Your task to perform on an android device: open app "PlayWell" (install if not already installed) and go to login screen Image 0: 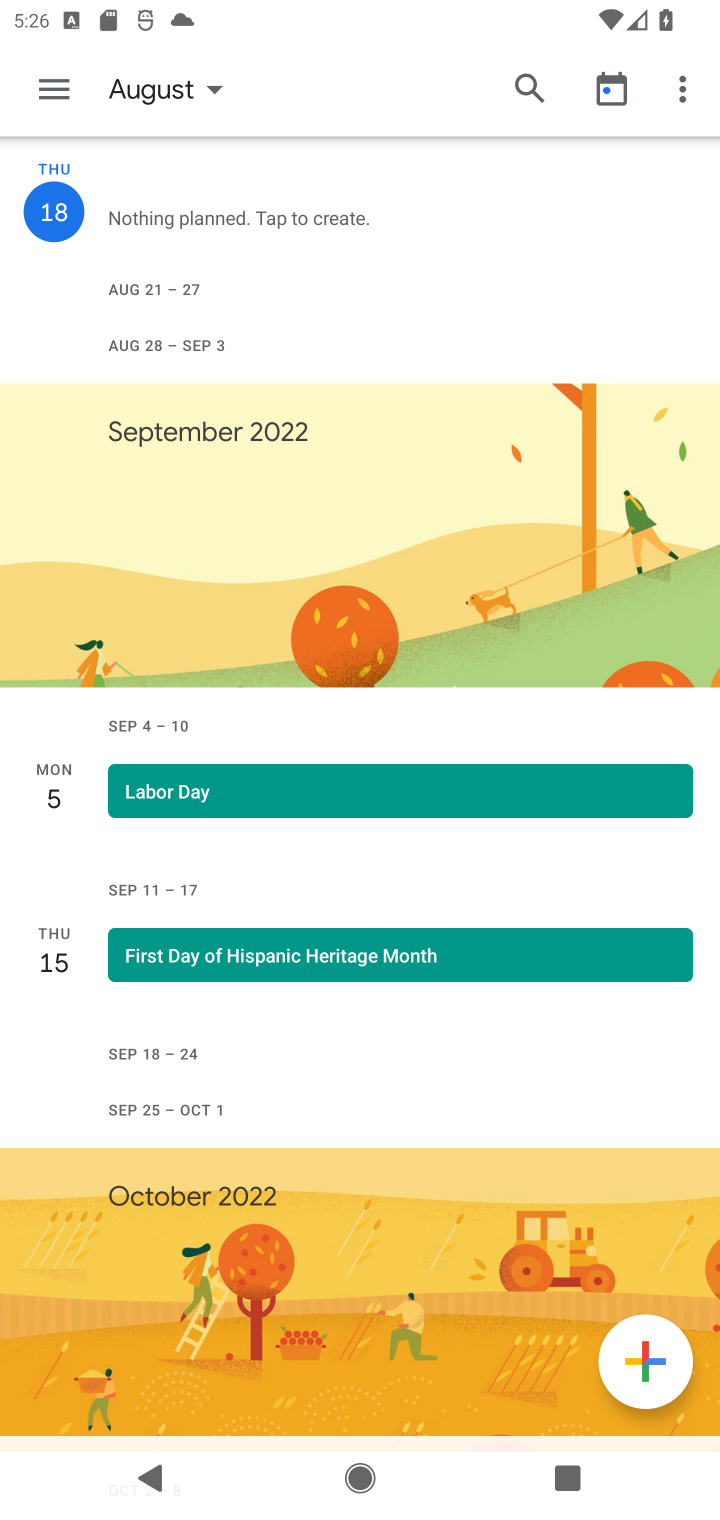
Step 0: press home button
Your task to perform on an android device: open app "PlayWell" (install if not already installed) and go to login screen Image 1: 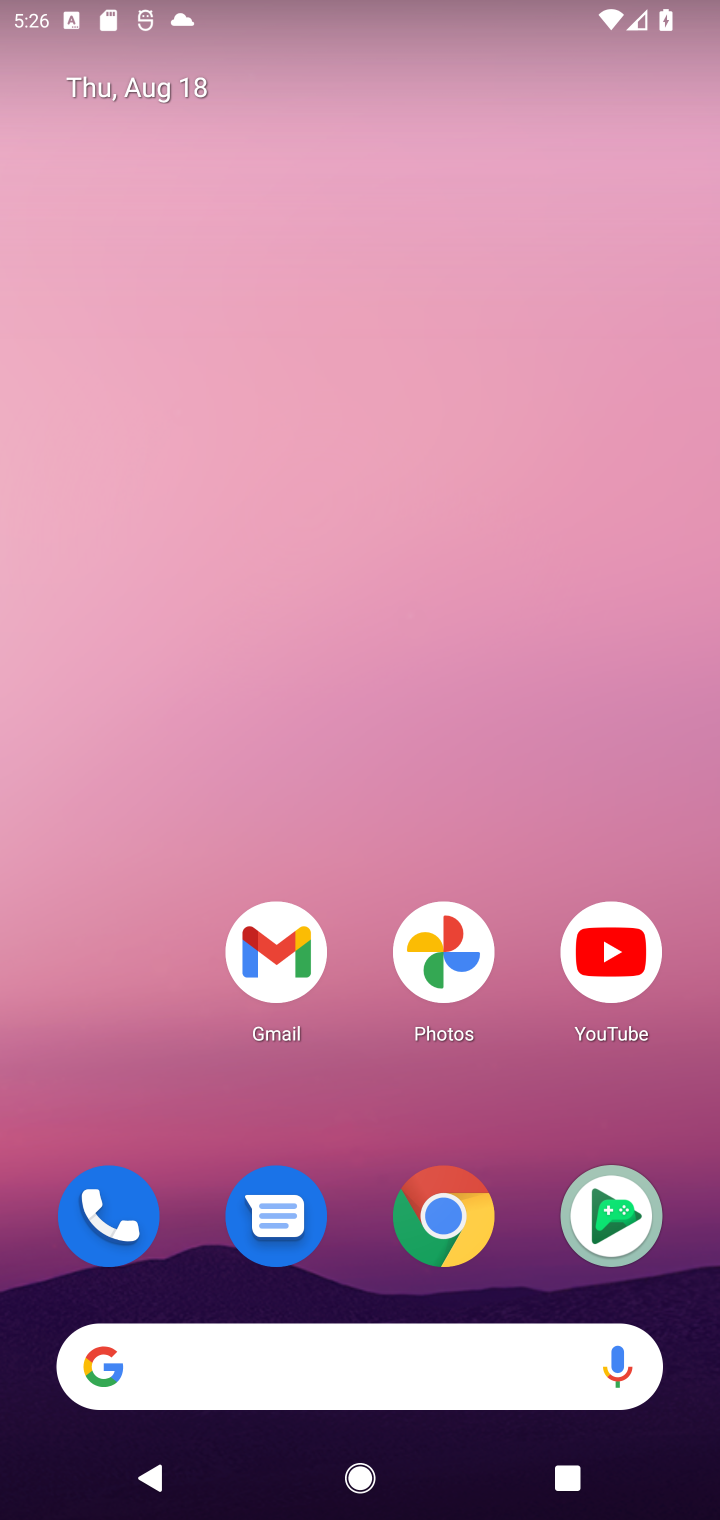
Step 1: drag from (395, 931) to (407, 41)
Your task to perform on an android device: open app "PlayWell" (install if not already installed) and go to login screen Image 2: 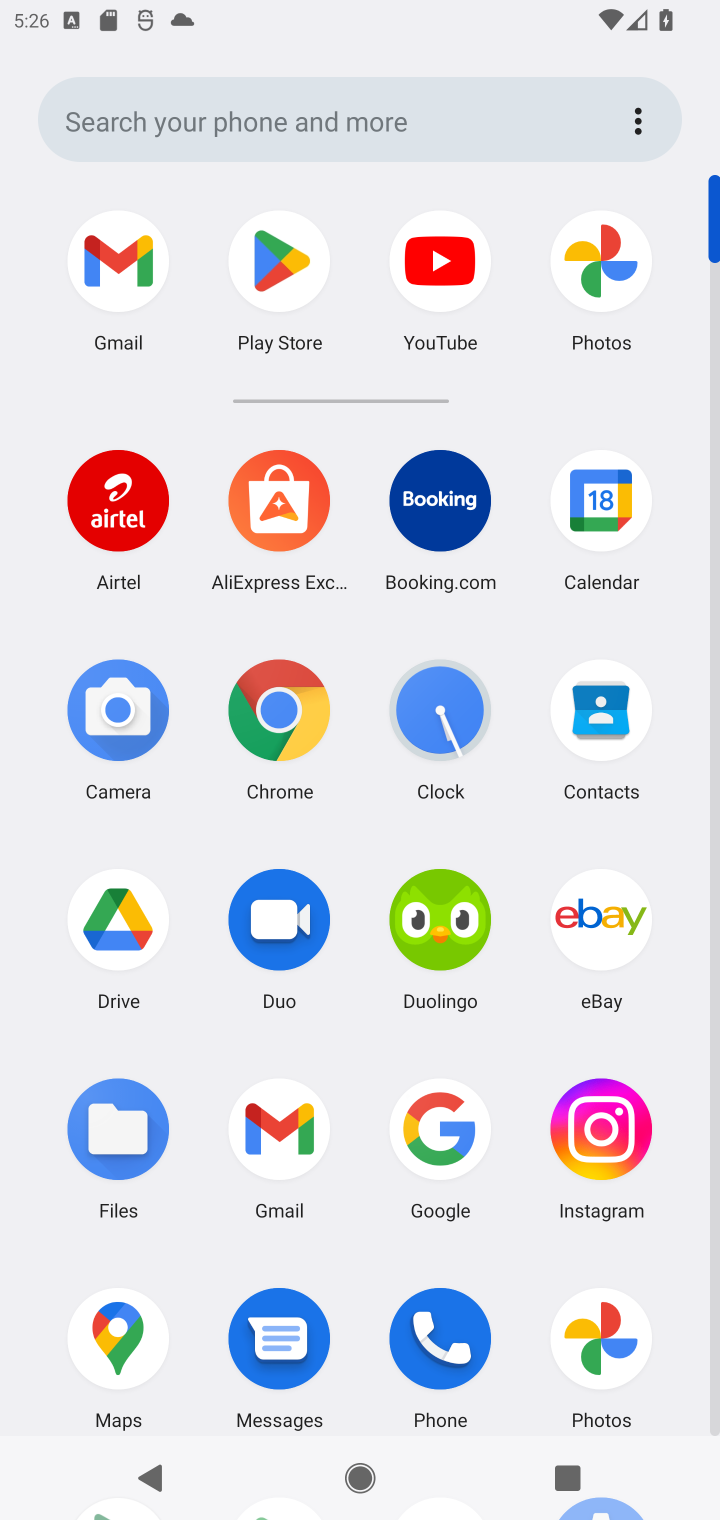
Step 2: click (308, 264)
Your task to perform on an android device: open app "PlayWell" (install if not already installed) and go to login screen Image 3: 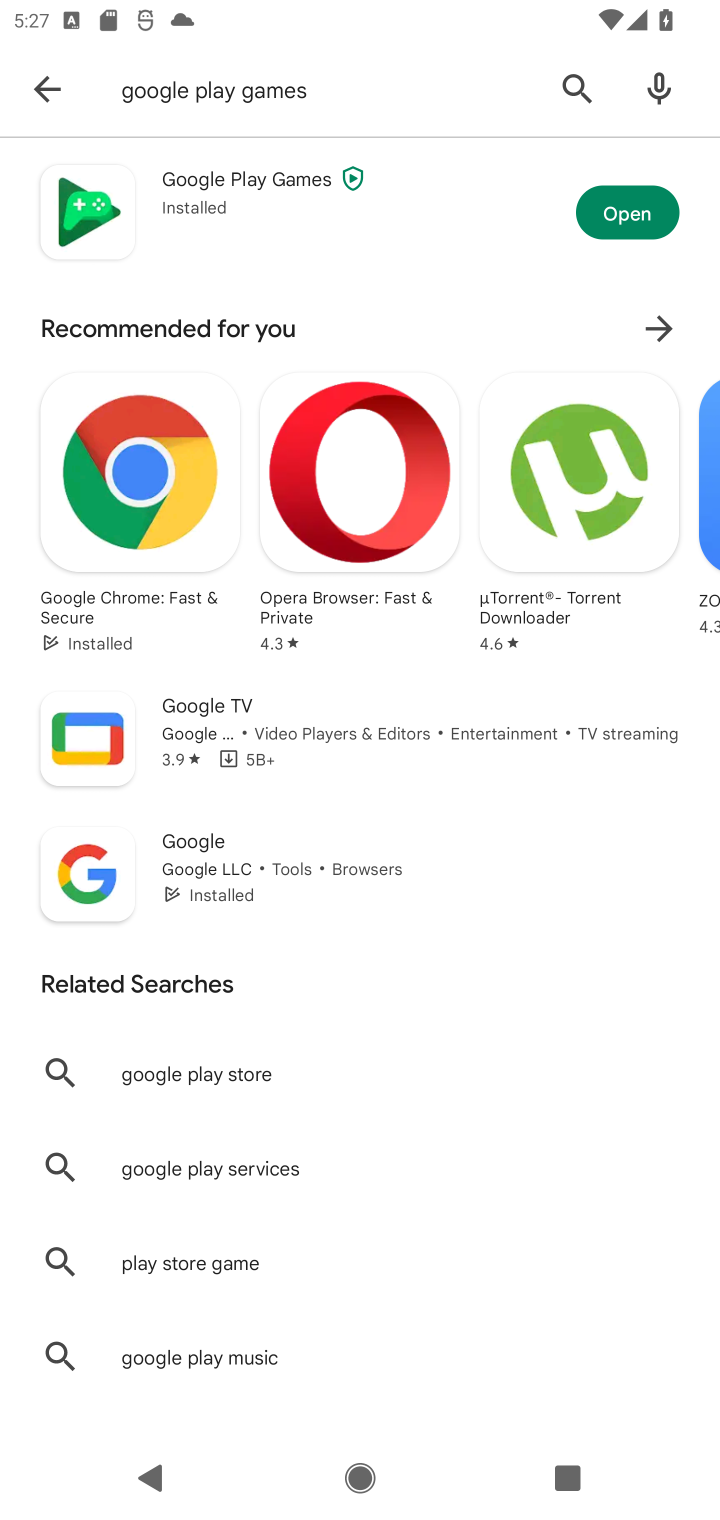
Step 3: click (590, 91)
Your task to perform on an android device: open app "PlayWell" (install if not already installed) and go to login screen Image 4: 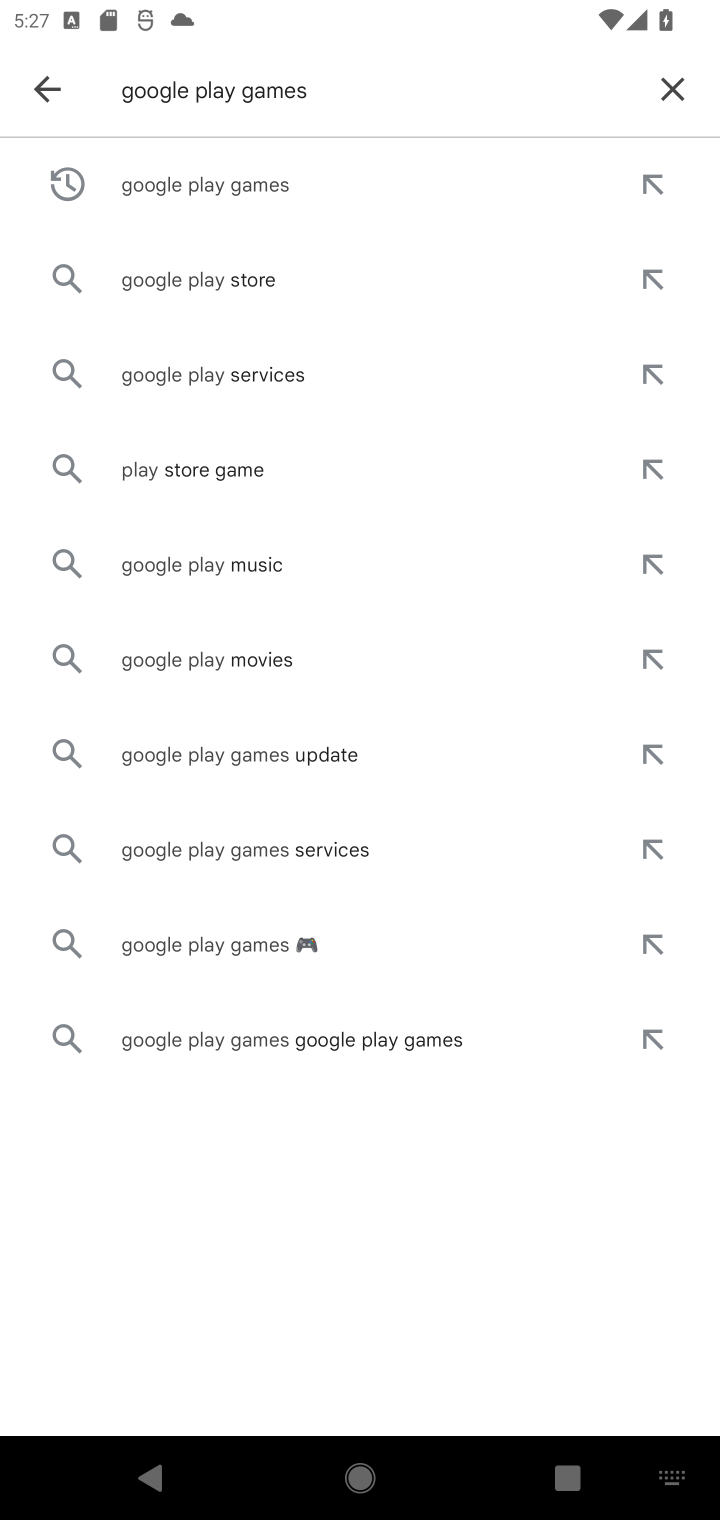
Step 4: click (673, 96)
Your task to perform on an android device: open app "PlayWell" (install if not already installed) and go to login screen Image 5: 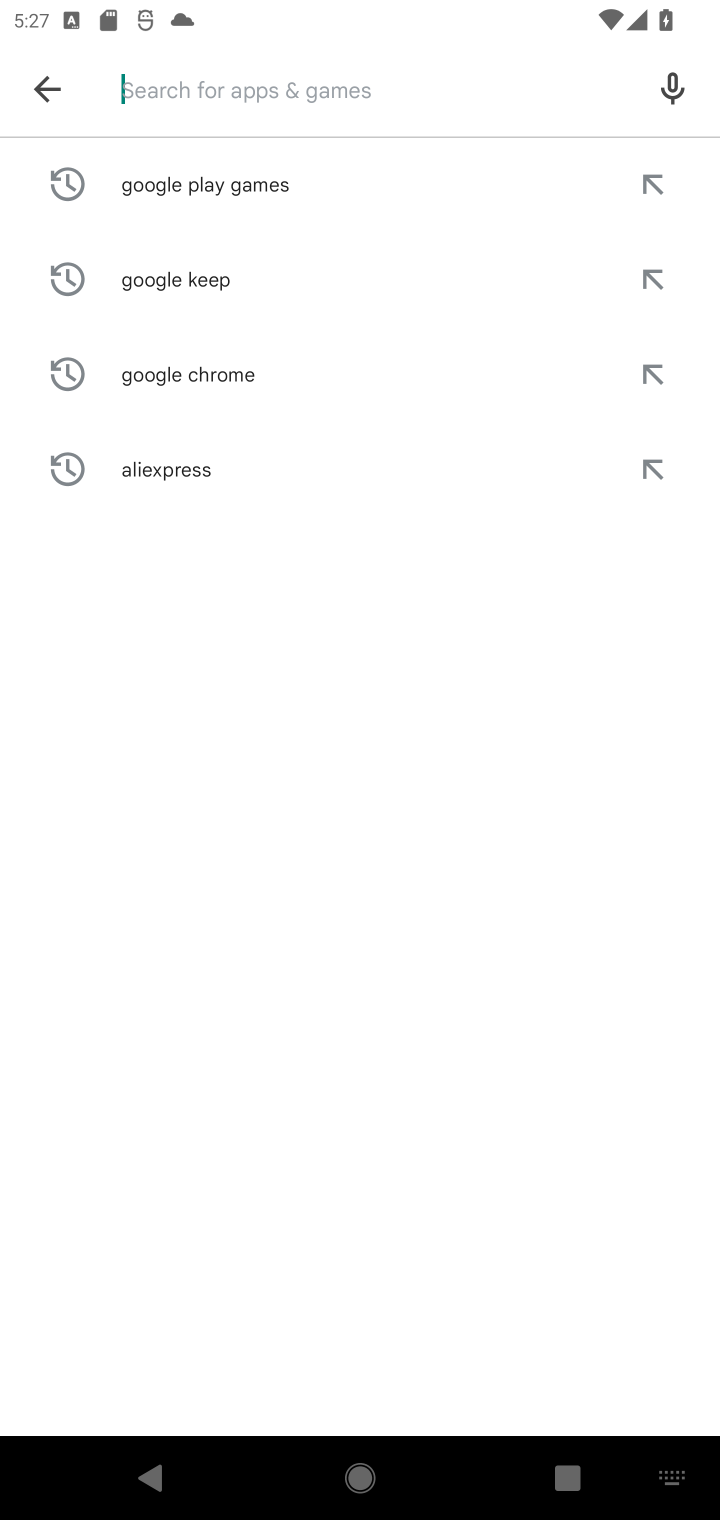
Step 5: type "PlayWell"
Your task to perform on an android device: open app "PlayWell" (install if not already installed) and go to login screen Image 6: 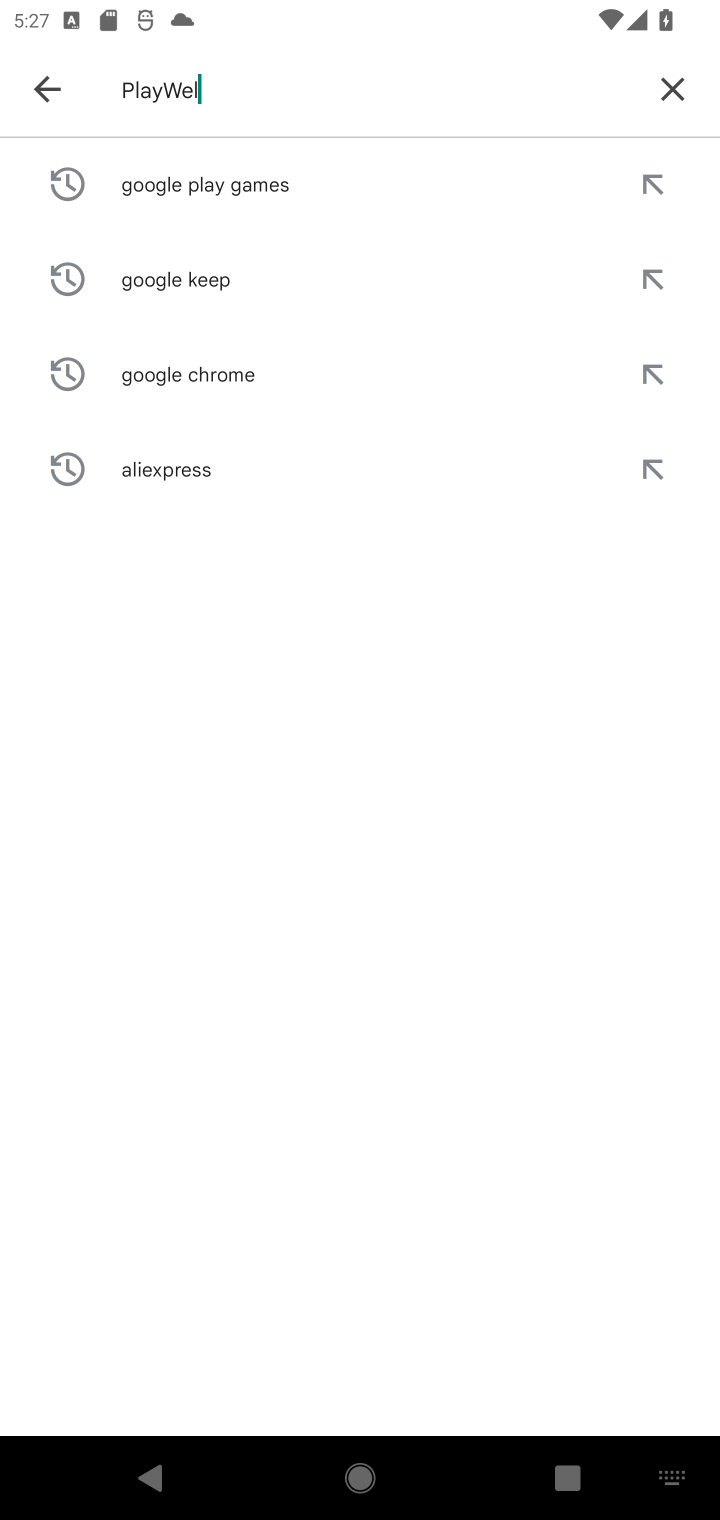
Step 6: type ""
Your task to perform on an android device: open app "PlayWell" (install if not already installed) and go to login screen Image 7: 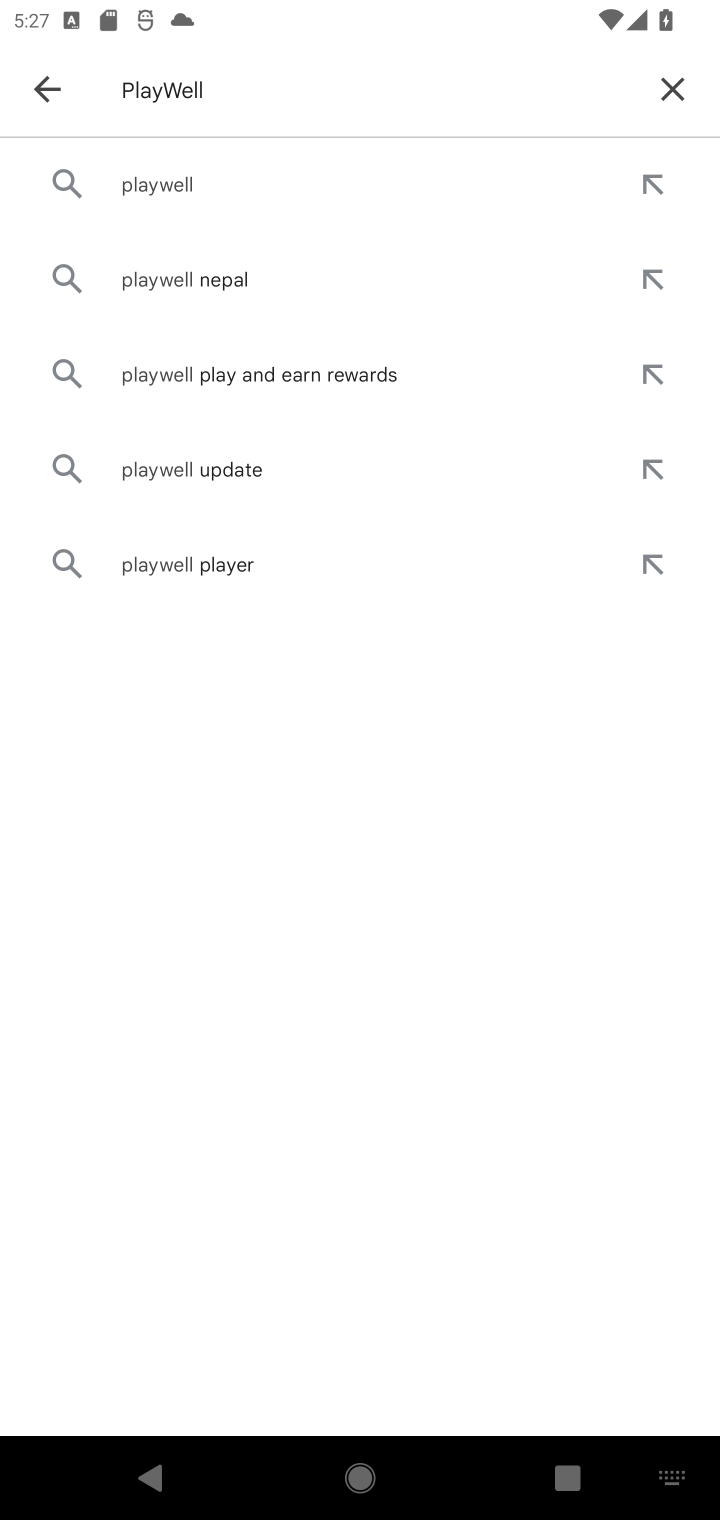
Step 7: click (289, 185)
Your task to perform on an android device: open app "PlayWell" (install if not already installed) and go to login screen Image 8: 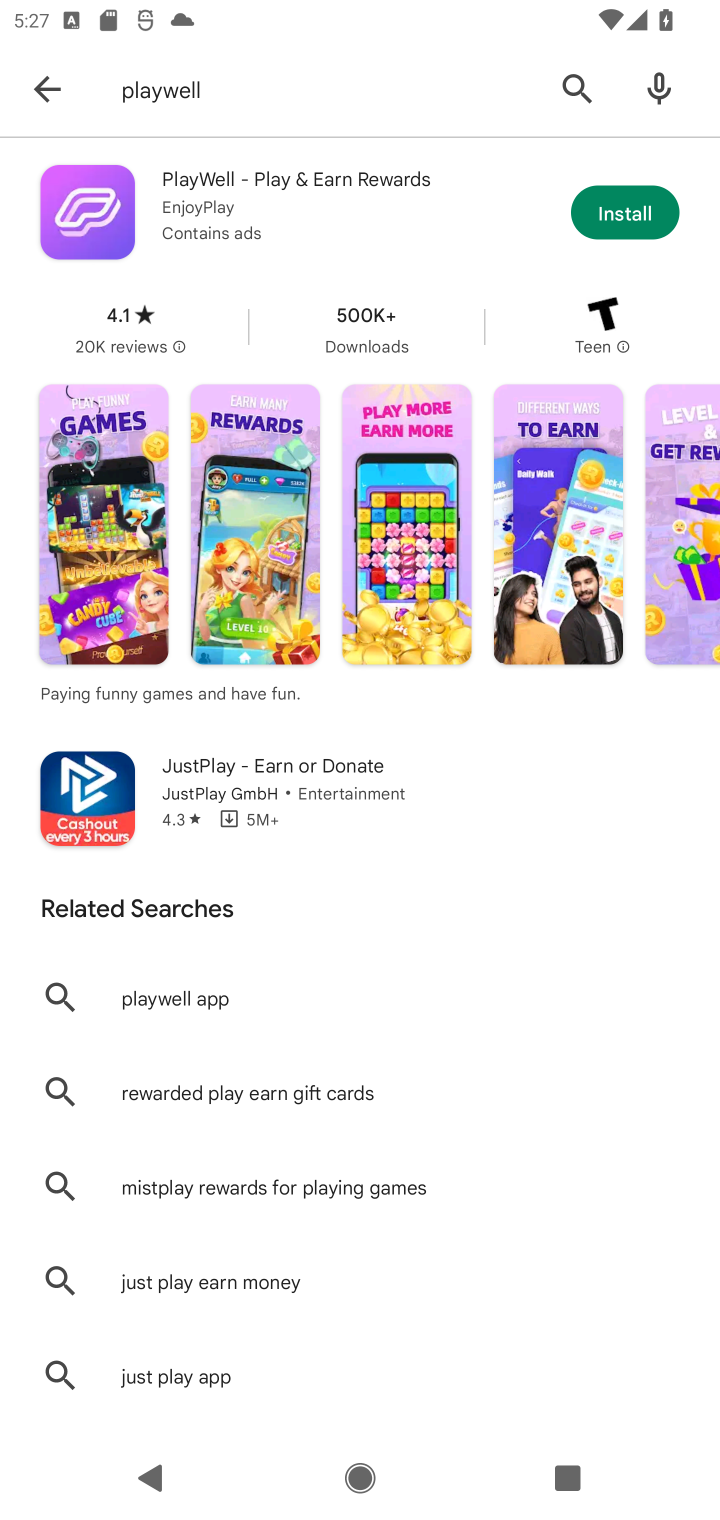
Step 8: click (657, 208)
Your task to perform on an android device: open app "PlayWell" (install if not already installed) and go to login screen Image 9: 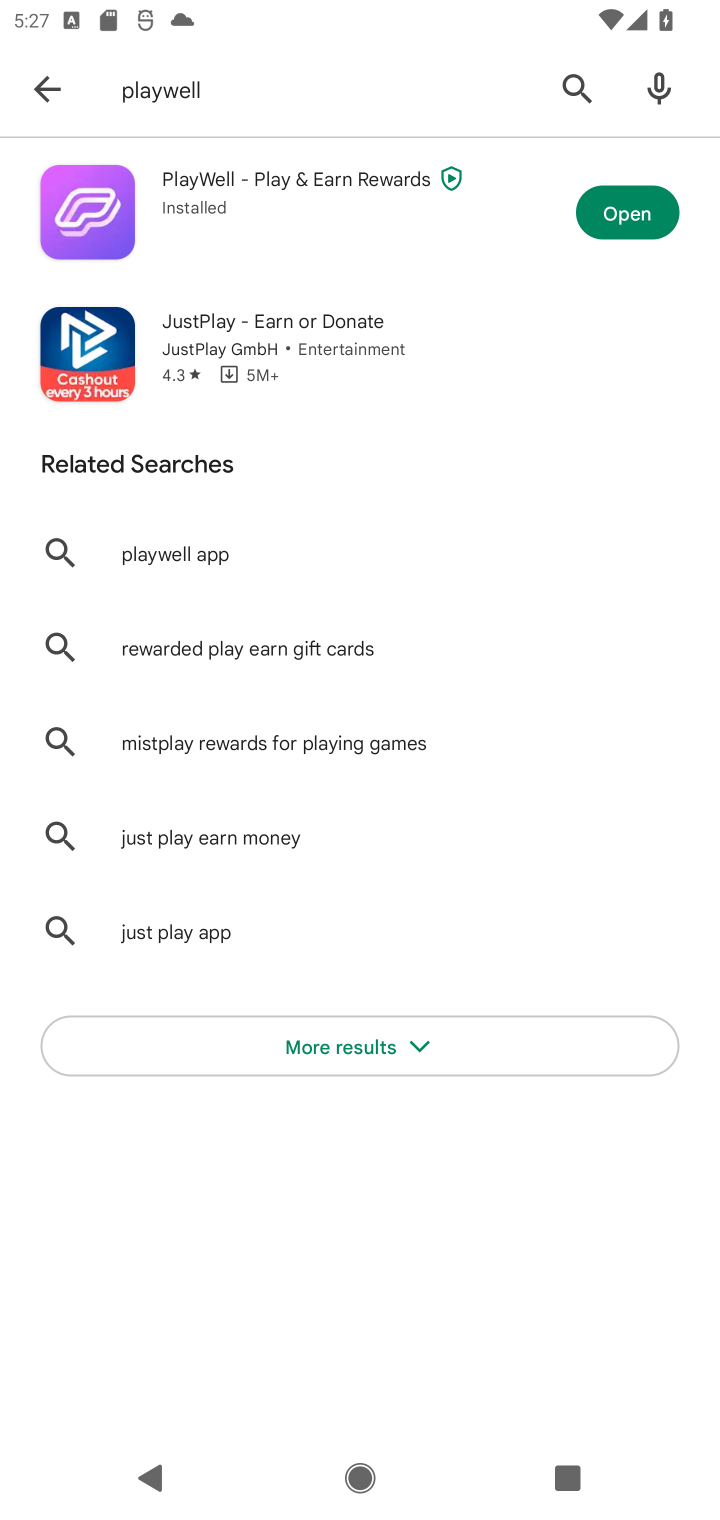
Step 9: click (649, 210)
Your task to perform on an android device: open app "PlayWell" (install if not already installed) and go to login screen Image 10: 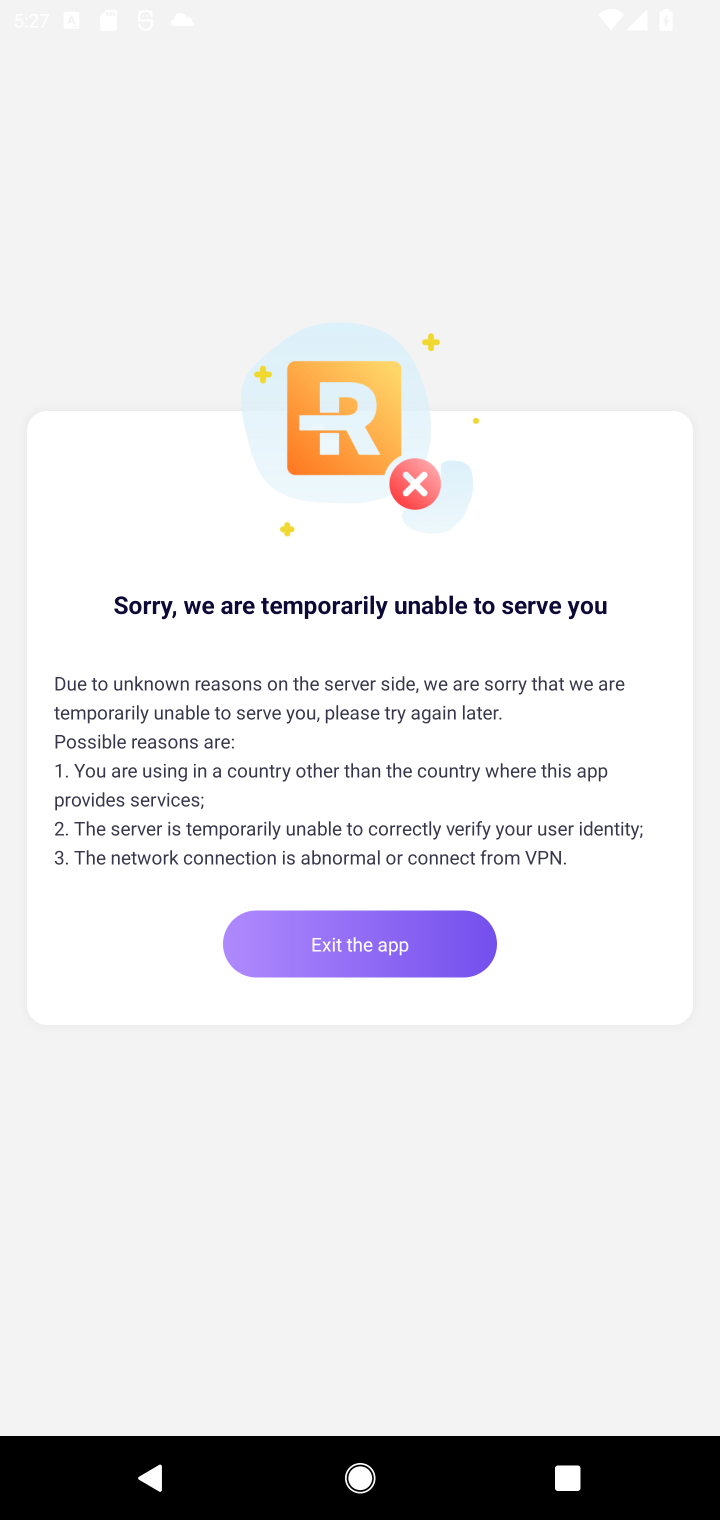
Step 10: task complete